Your task to perform on an android device: open the mobile data screen to see how much data has been used Image 0: 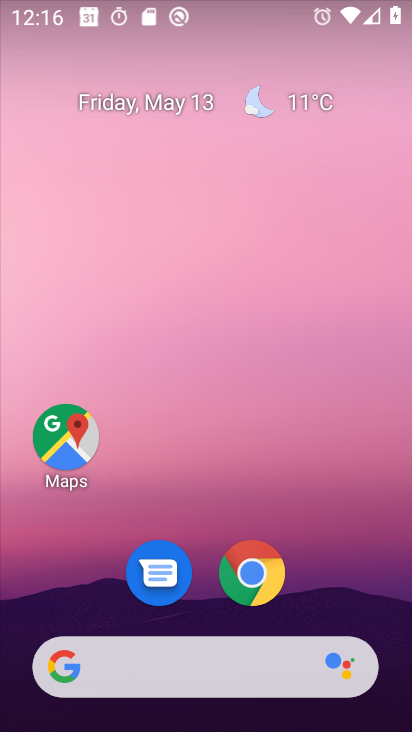
Step 0: drag from (370, 608) to (316, 402)
Your task to perform on an android device: open the mobile data screen to see how much data has been used Image 1: 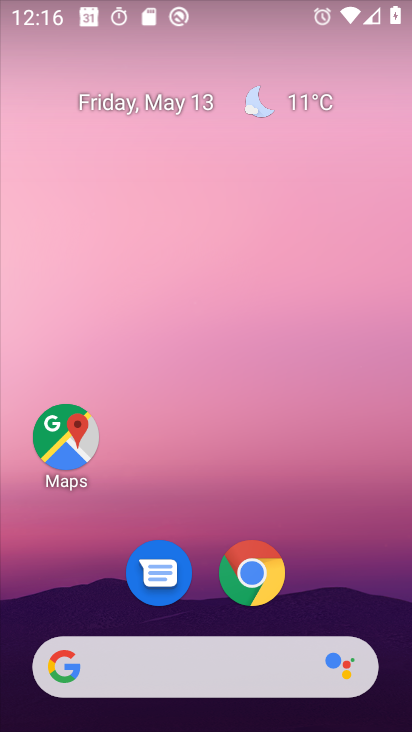
Step 1: drag from (392, 690) to (313, 293)
Your task to perform on an android device: open the mobile data screen to see how much data has been used Image 2: 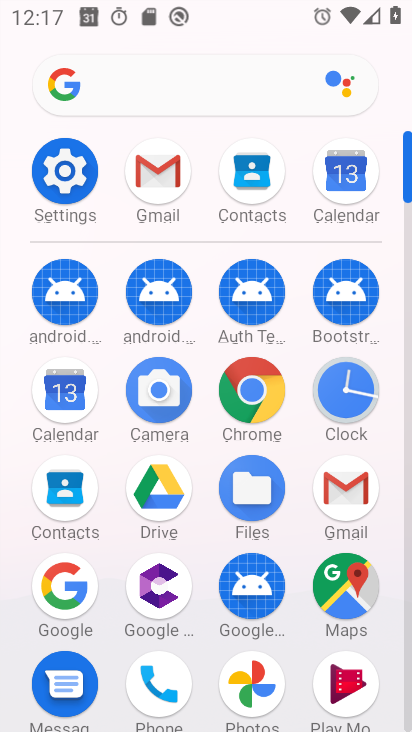
Step 2: click (78, 181)
Your task to perform on an android device: open the mobile data screen to see how much data has been used Image 3: 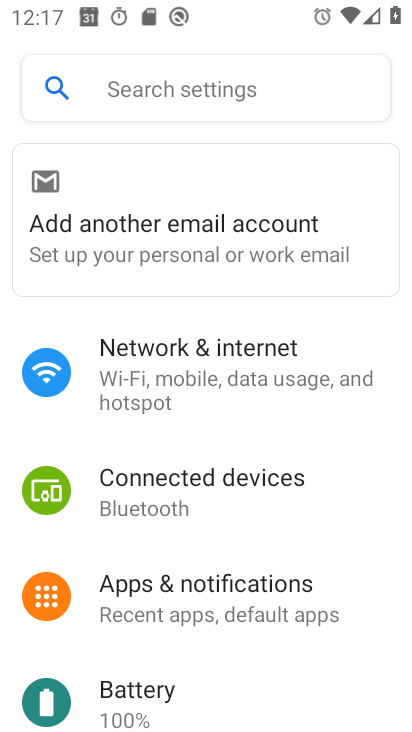
Step 3: click (131, 364)
Your task to perform on an android device: open the mobile data screen to see how much data has been used Image 4: 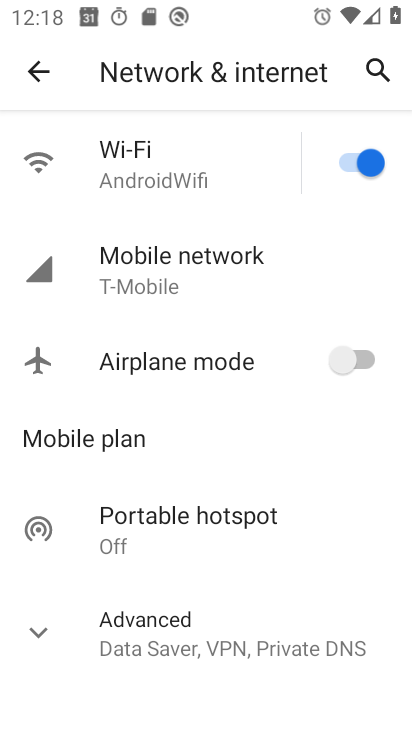
Step 4: click (43, 68)
Your task to perform on an android device: open the mobile data screen to see how much data has been used Image 5: 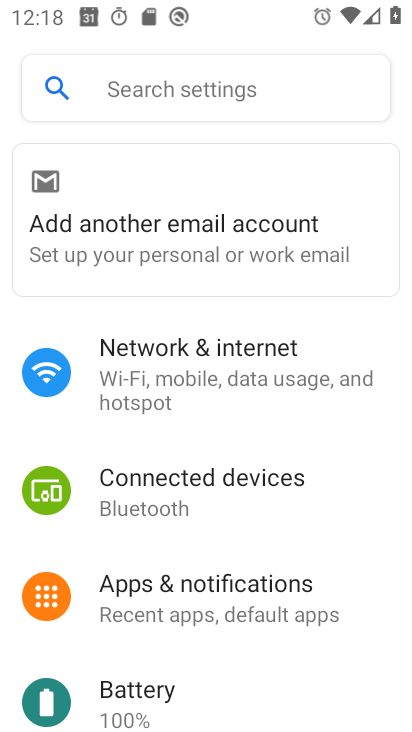
Step 5: drag from (258, 662) to (270, 464)
Your task to perform on an android device: open the mobile data screen to see how much data has been used Image 6: 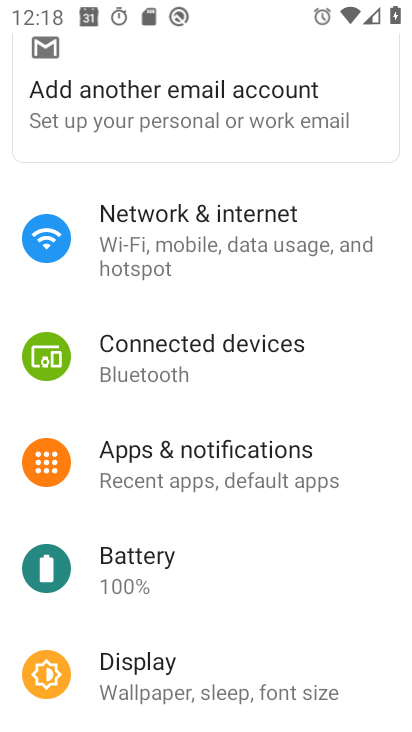
Step 6: drag from (251, 673) to (253, 464)
Your task to perform on an android device: open the mobile data screen to see how much data has been used Image 7: 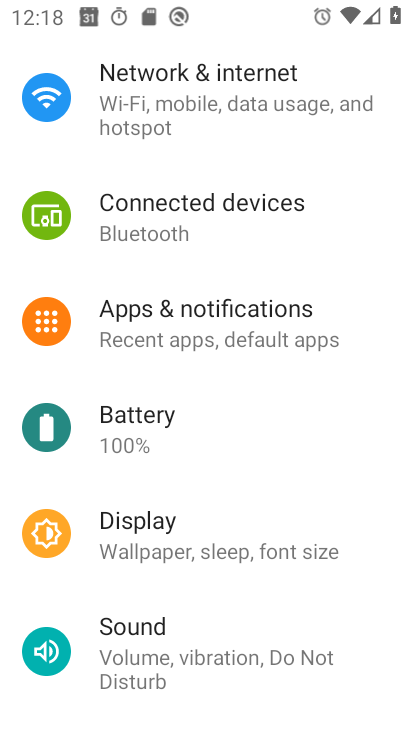
Step 7: drag from (257, 675) to (265, 576)
Your task to perform on an android device: open the mobile data screen to see how much data has been used Image 8: 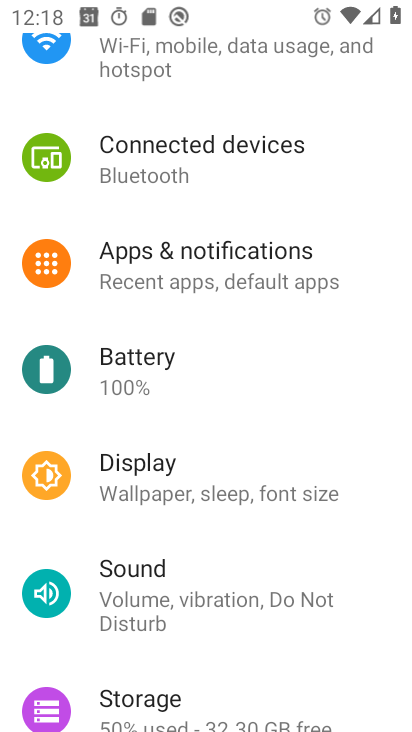
Step 8: drag from (298, 647) to (308, 518)
Your task to perform on an android device: open the mobile data screen to see how much data has been used Image 9: 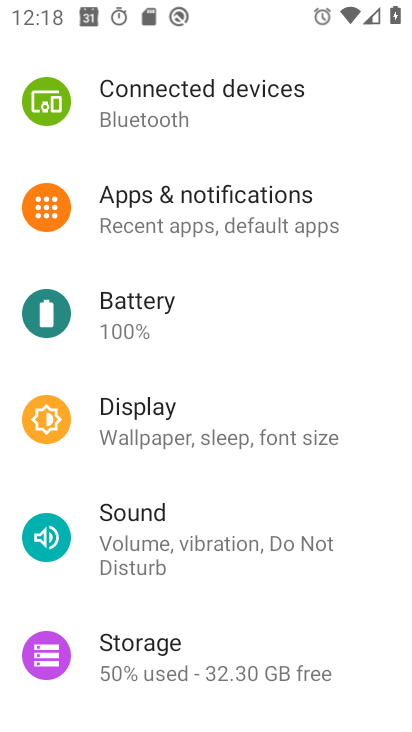
Step 9: drag from (321, 345) to (318, 541)
Your task to perform on an android device: open the mobile data screen to see how much data has been used Image 10: 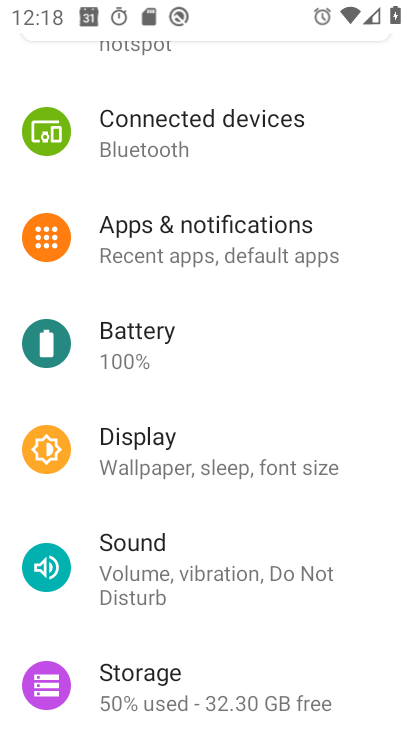
Step 10: drag from (350, 385) to (334, 699)
Your task to perform on an android device: open the mobile data screen to see how much data has been used Image 11: 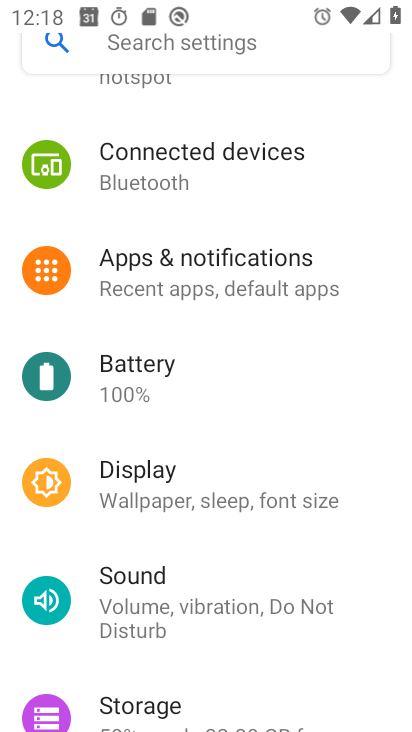
Step 11: drag from (362, 146) to (342, 478)
Your task to perform on an android device: open the mobile data screen to see how much data has been used Image 12: 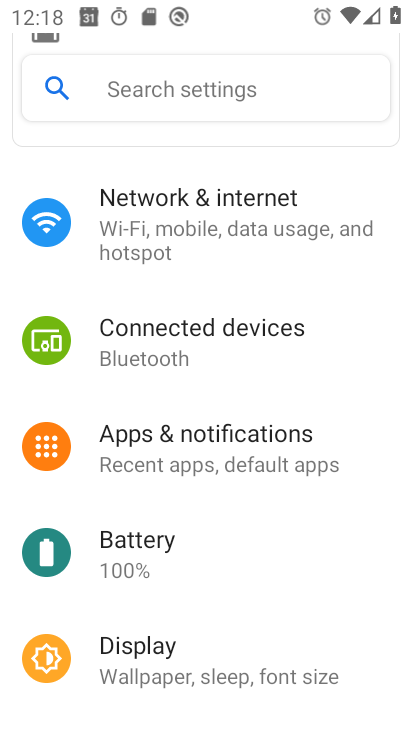
Step 12: click (159, 222)
Your task to perform on an android device: open the mobile data screen to see how much data has been used Image 13: 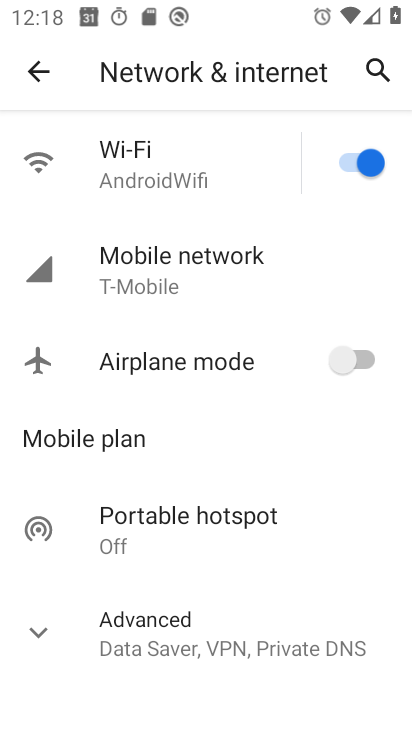
Step 13: drag from (267, 673) to (280, 400)
Your task to perform on an android device: open the mobile data screen to see how much data has been used Image 14: 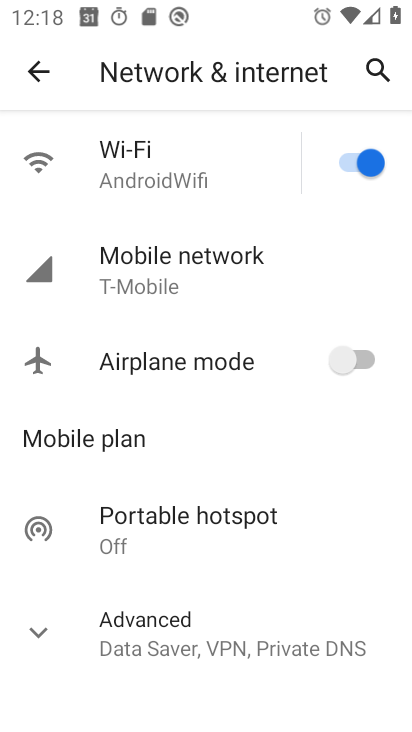
Step 14: drag from (302, 167) to (264, 501)
Your task to perform on an android device: open the mobile data screen to see how much data has been used Image 15: 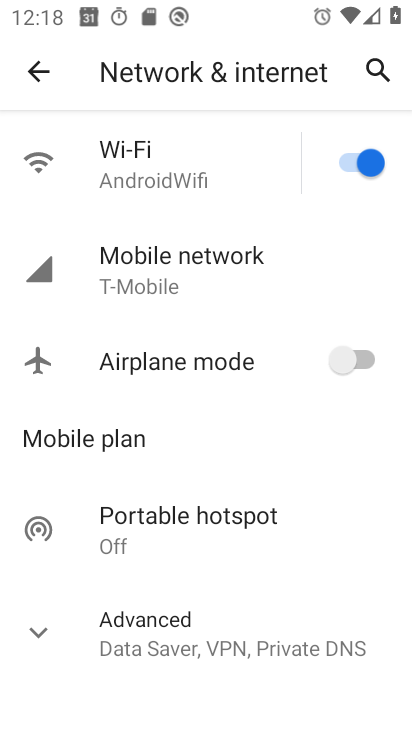
Step 15: click (165, 275)
Your task to perform on an android device: open the mobile data screen to see how much data has been used Image 16: 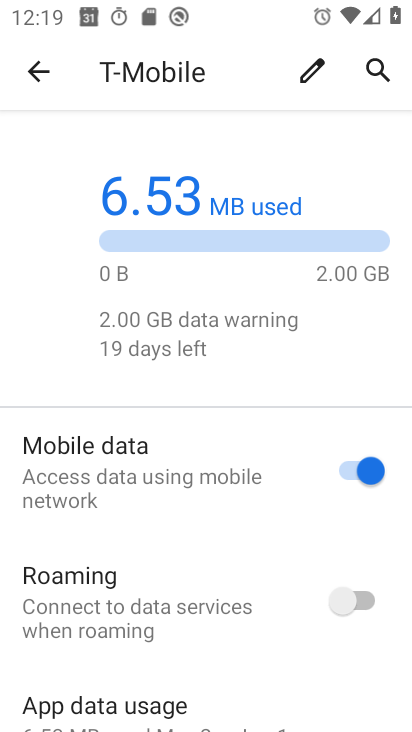
Step 16: task complete